Your task to perform on an android device: change the clock display to show seconds Image 0: 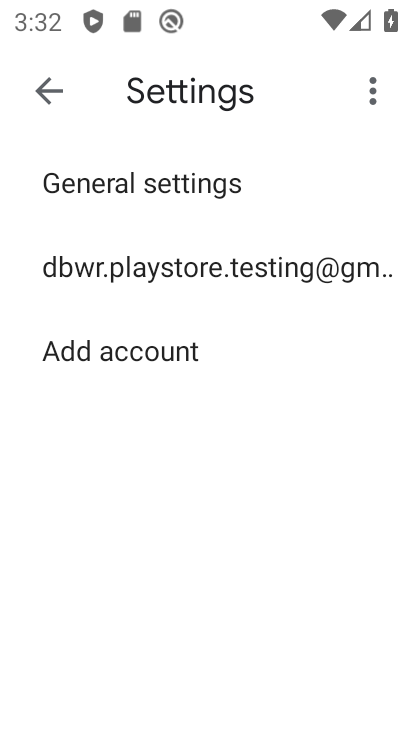
Step 0: press home button
Your task to perform on an android device: change the clock display to show seconds Image 1: 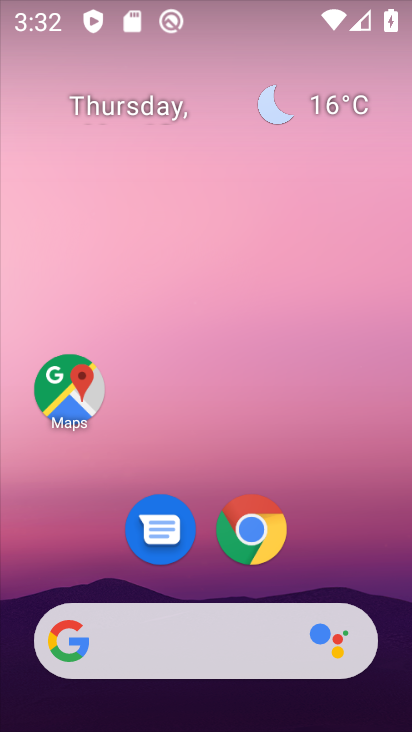
Step 1: drag from (202, 522) to (159, 83)
Your task to perform on an android device: change the clock display to show seconds Image 2: 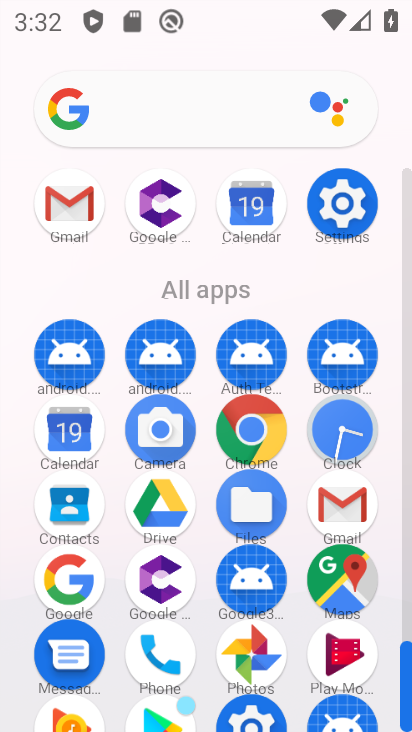
Step 2: click (335, 456)
Your task to perform on an android device: change the clock display to show seconds Image 3: 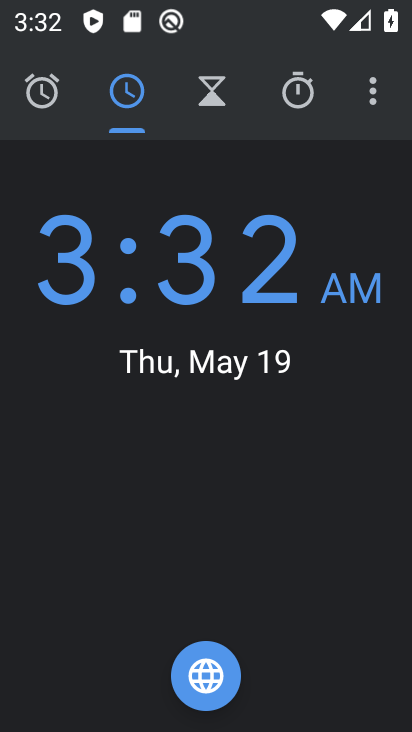
Step 3: click (364, 100)
Your task to perform on an android device: change the clock display to show seconds Image 4: 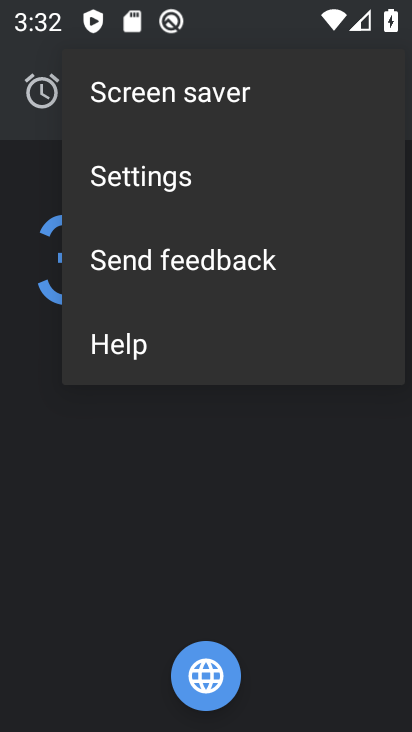
Step 4: click (173, 172)
Your task to perform on an android device: change the clock display to show seconds Image 5: 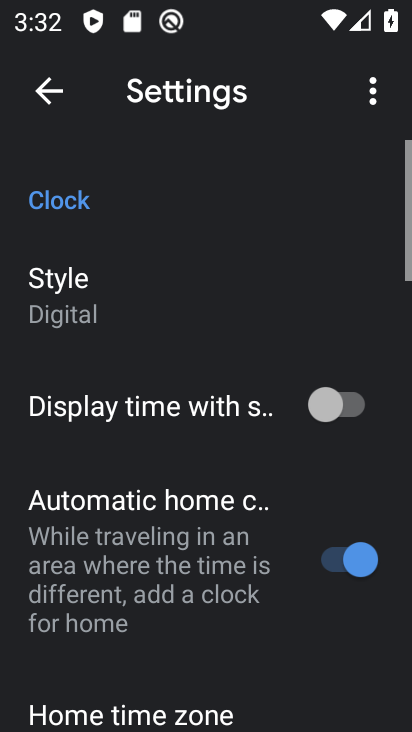
Step 5: click (316, 422)
Your task to perform on an android device: change the clock display to show seconds Image 6: 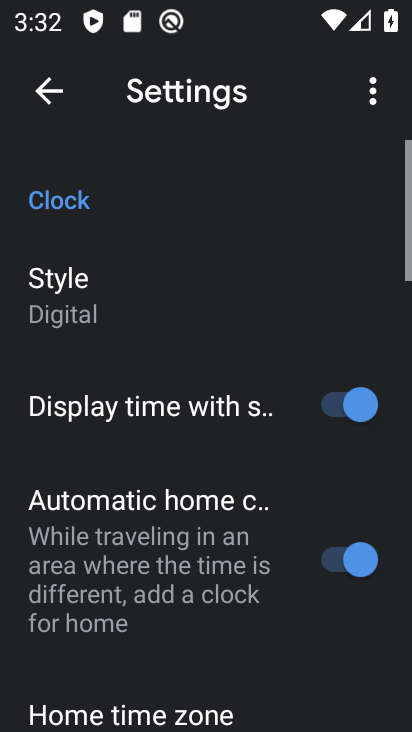
Step 6: task complete